Your task to perform on an android device: Add razer thresher to the cart on ebay, then select checkout. Image 0: 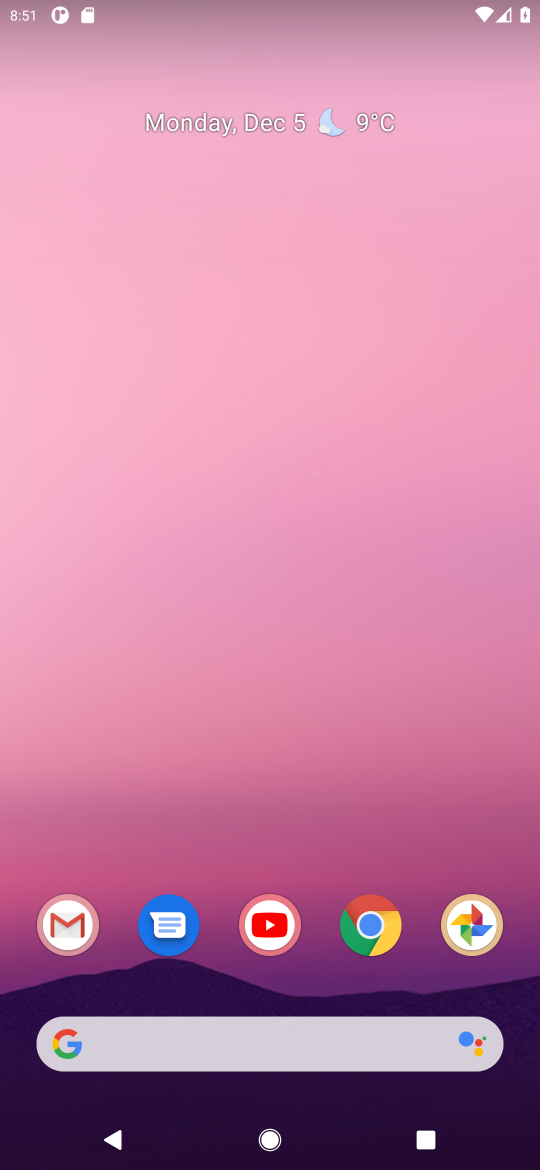
Step 0: click (382, 931)
Your task to perform on an android device: Add razer thresher to the cart on ebay, then select checkout. Image 1: 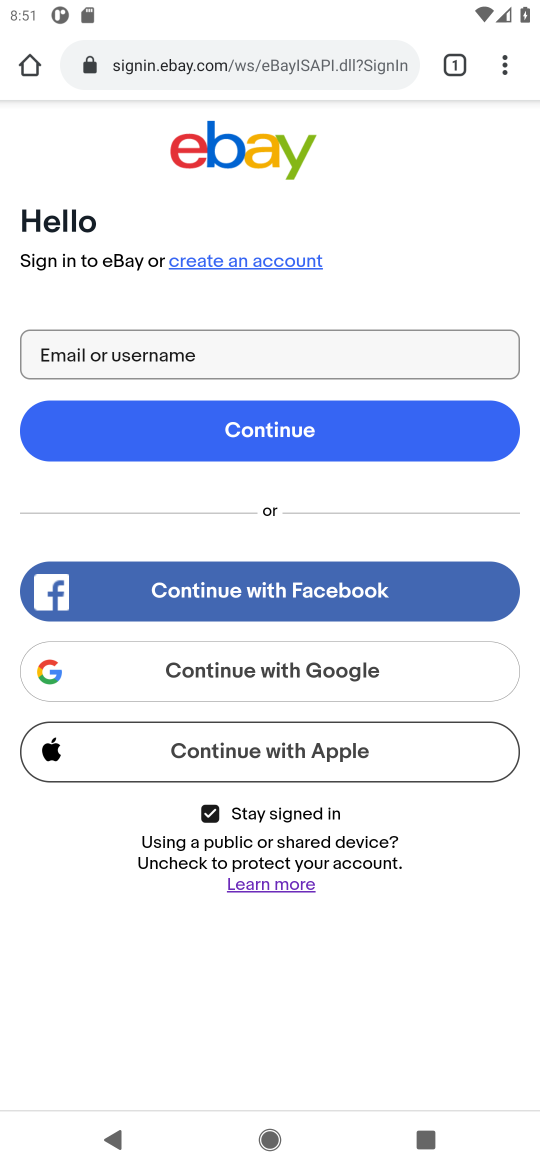
Step 1: press back button
Your task to perform on an android device: Add razer thresher to the cart on ebay, then select checkout. Image 2: 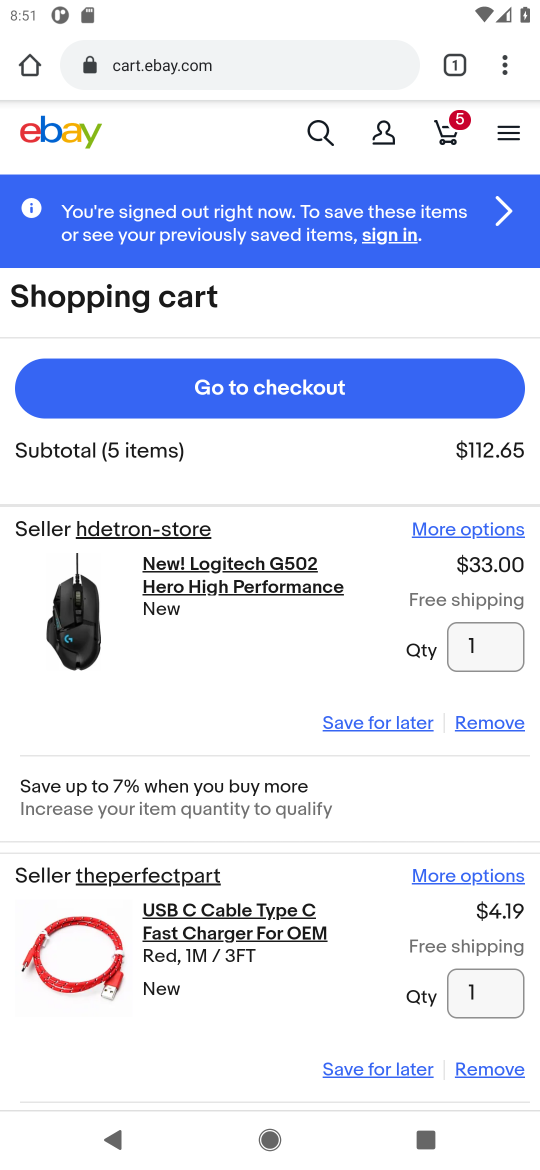
Step 2: click (328, 133)
Your task to perform on an android device: Add razer thresher to the cart on ebay, then select checkout. Image 3: 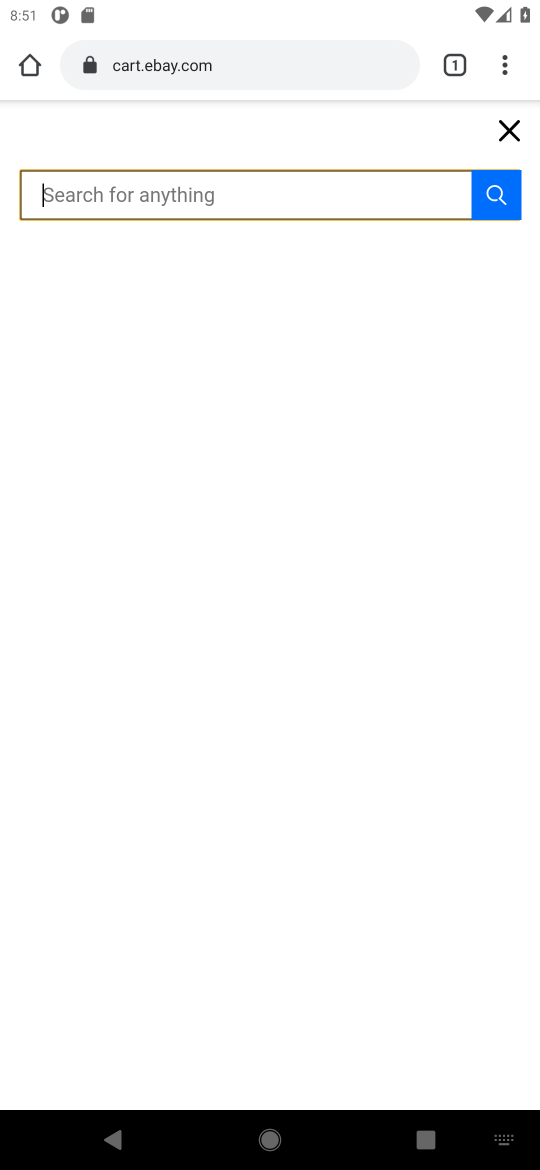
Step 3: type " razer thresher"
Your task to perform on an android device: Add razer thresher to the cart on ebay, then select checkout. Image 4: 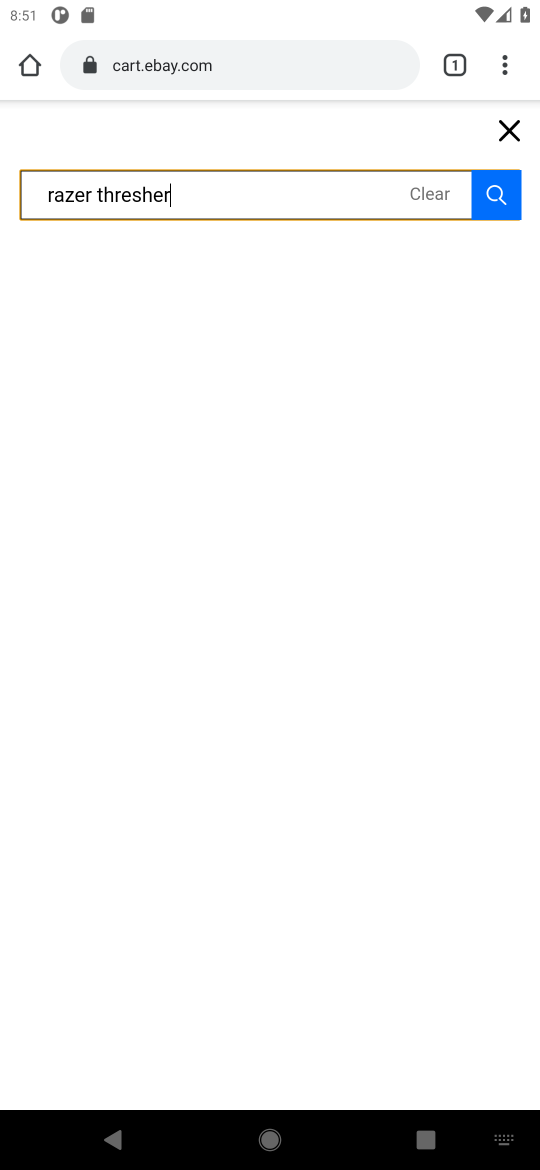
Step 4: click (501, 199)
Your task to perform on an android device: Add razer thresher to the cart on ebay, then select checkout. Image 5: 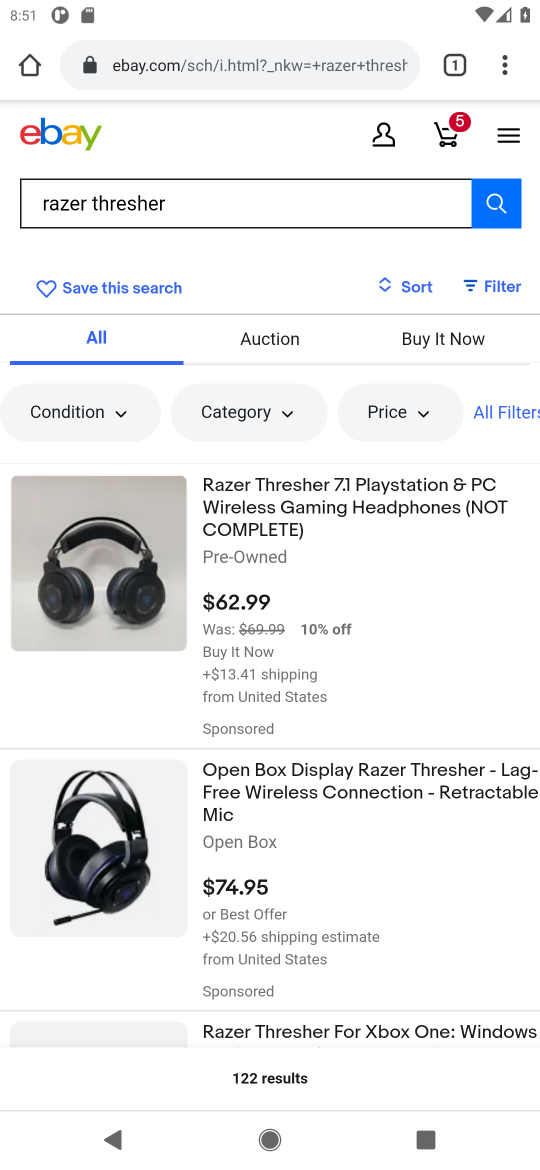
Step 5: click (242, 516)
Your task to perform on an android device: Add razer thresher to the cart on ebay, then select checkout. Image 6: 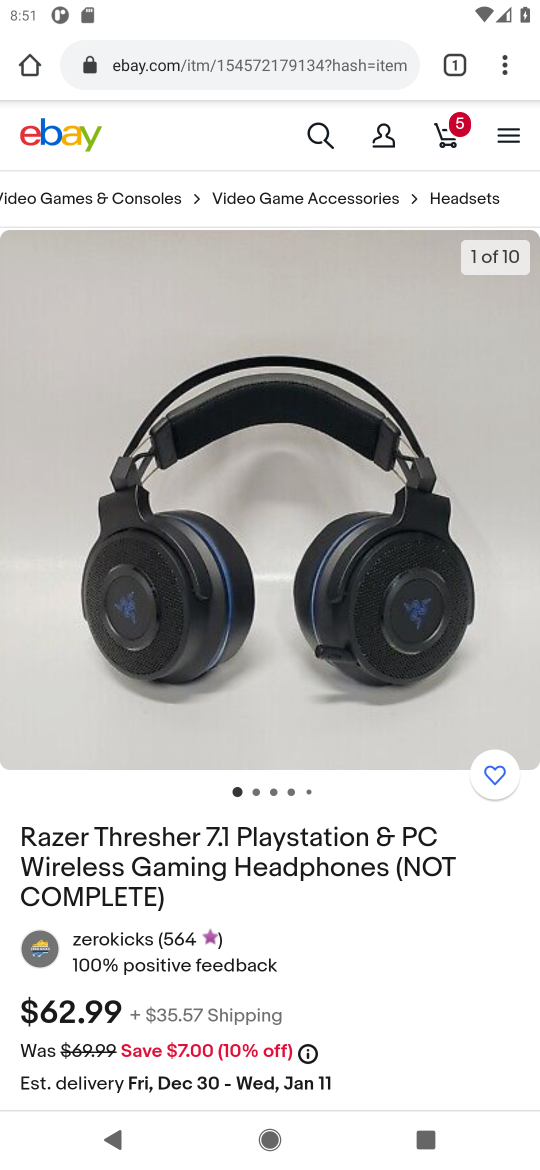
Step 6: drag from (339, 879) to (297, 376)
Your task to perform on an android device: Add razer thresher to the cart on ebay, then select checkout. Image 7: 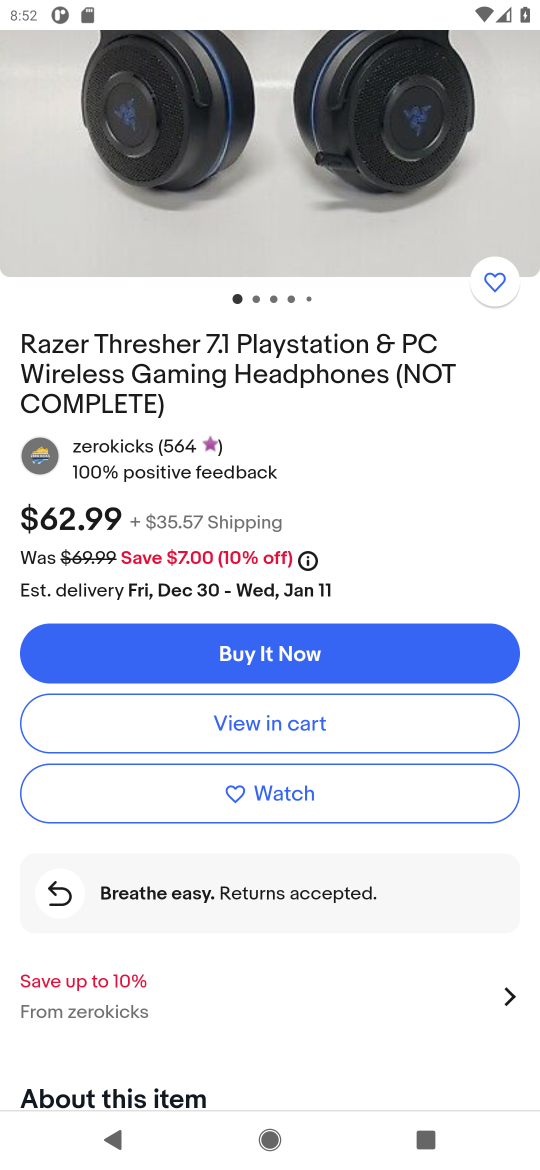
Step 7: click (255, 727)
Your task to perform on an android device: Add razer thresher to the cart on ebay, then select checkout. Image 8: 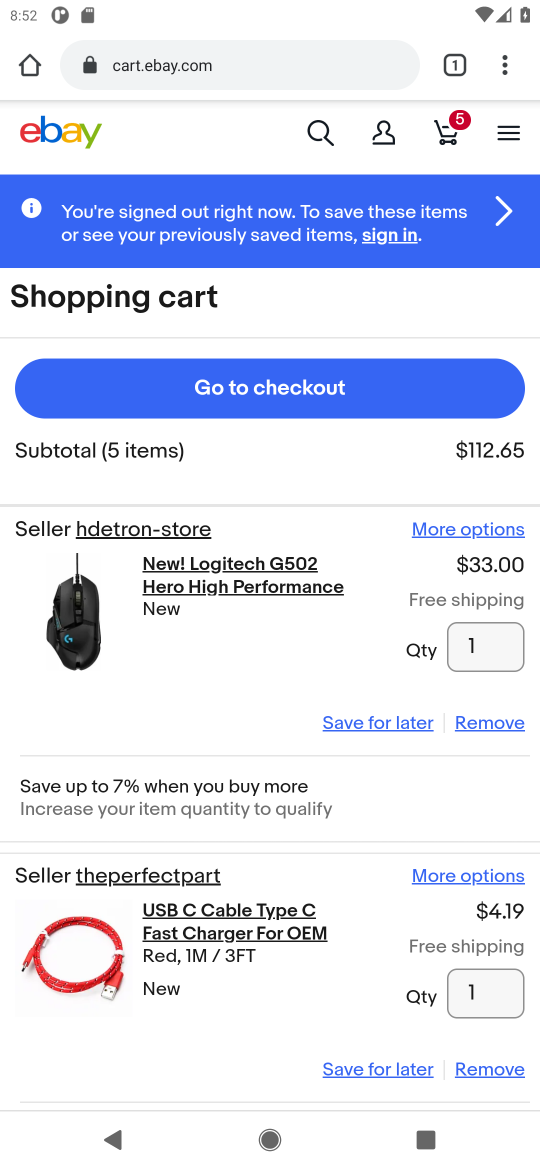
Step 8: click (267, 387)
Your task to perform on an android device: Add razer thresher to the cart on ebay, then select checkout. Image 9: 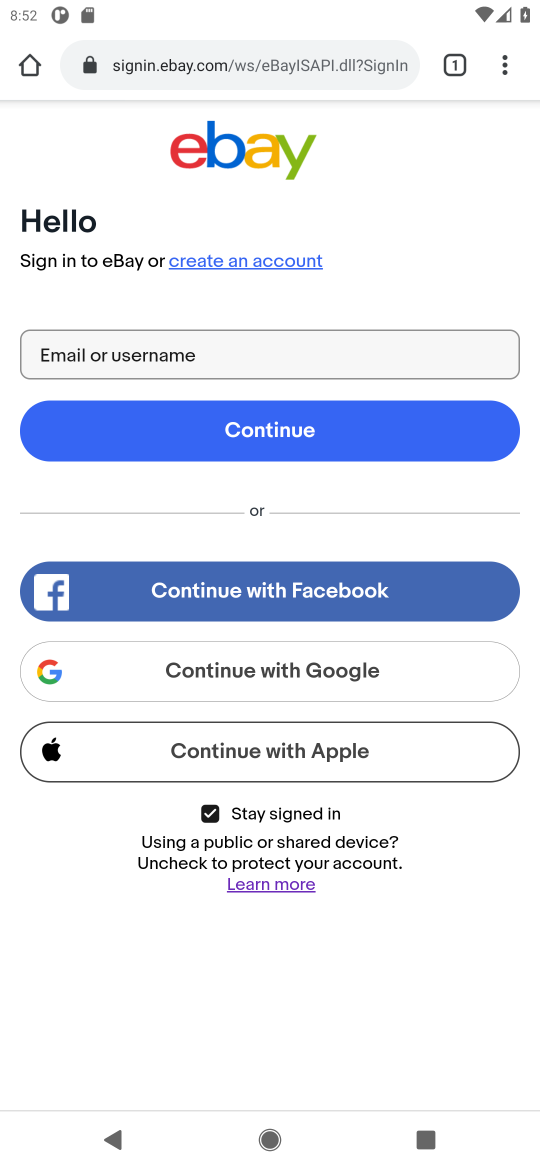
Step 9: task complete